Your task to perform on an android device: Check the weather Image 0: 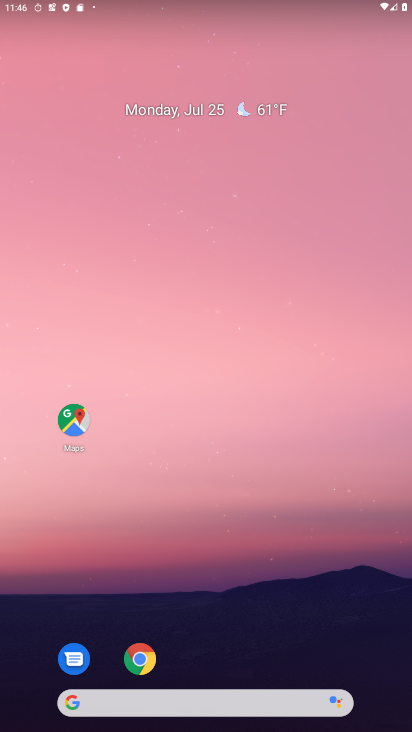
Step 0: click (131, 697)
Your task to perform on an android device: Check the weather Image 1: 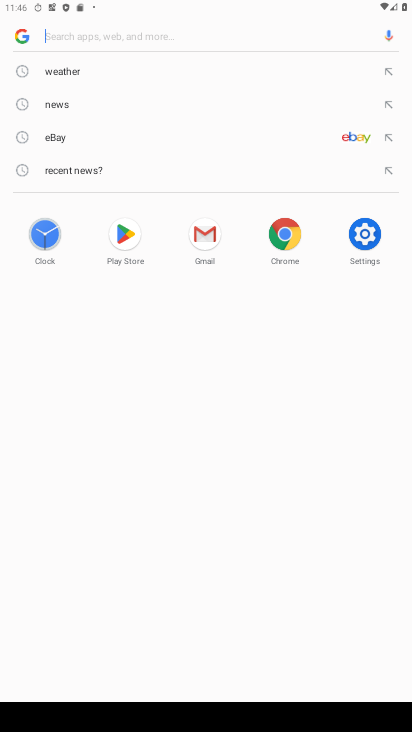
Step 1: click (63, 69)
Your task to perform on an android device: Check the weather Image 2: 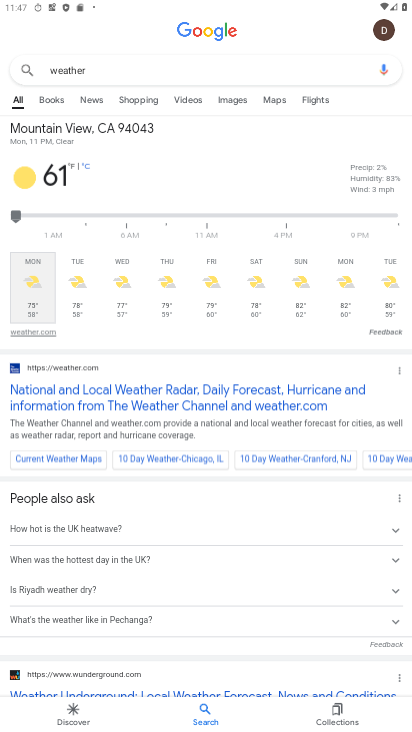
Step 2: task complete